Your task to perform on an android device: snooze an email in the gmail app Image 0: 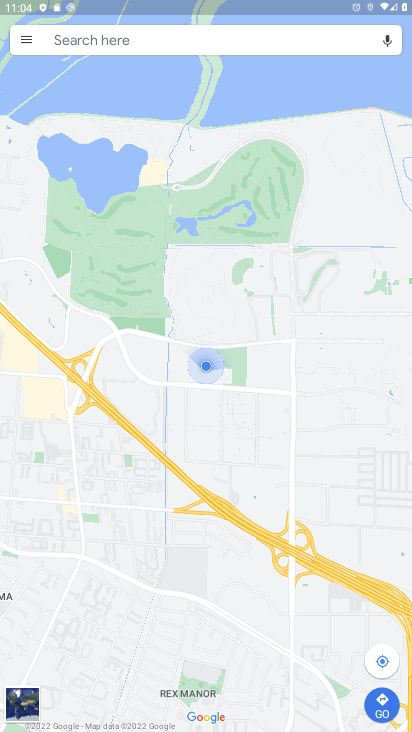
Step 0: press home button
Your task to perform on an android device: snooze an email in the gmail app Image 1: 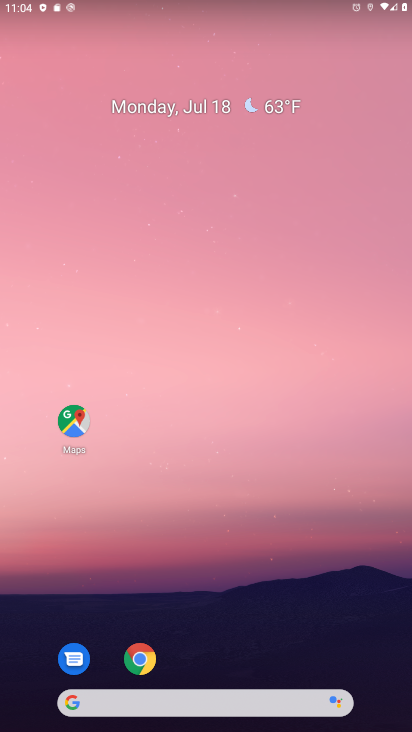
Step 1: drag from (212, 673) to (258, 147)
Your task to perform on an android device: snooze an email in the gmail app Image 2: 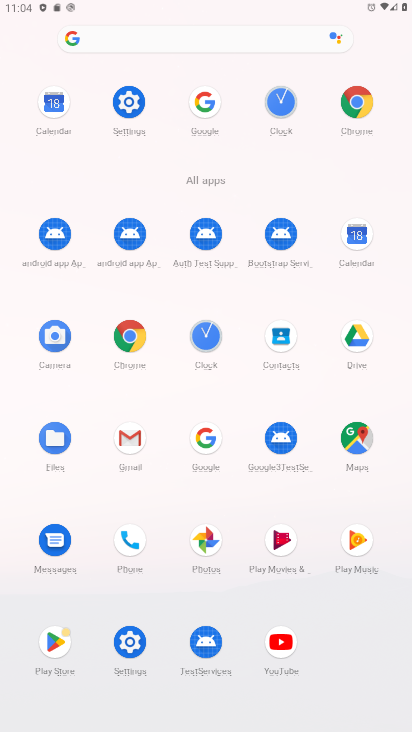
Step 2: click (128, 434)
Your task to perform on an android device: snooze an email in the gmail app Image 3: 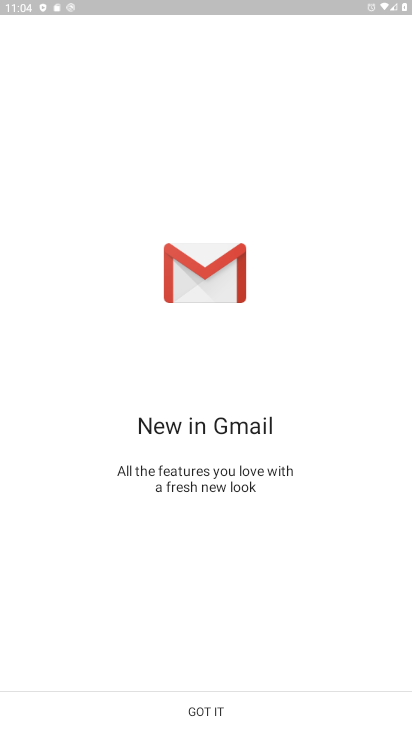
Step 3: click (210, 718)
Your task to perform on an android device: snooze an email in the gmail app Image 4: 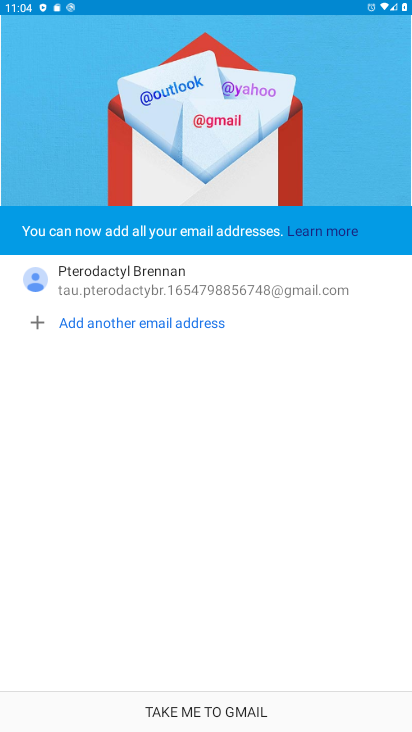
Step 4: click (211, 718)
Your task to perform on an android device: snooze an email in the gmail app Image 5: 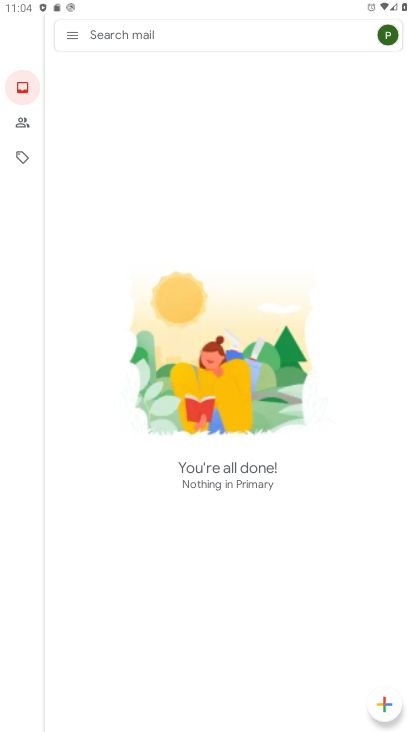
Step 5: click (73, 36)
Your task to perform on an android device: snooze an email in the gmail app Image 6: 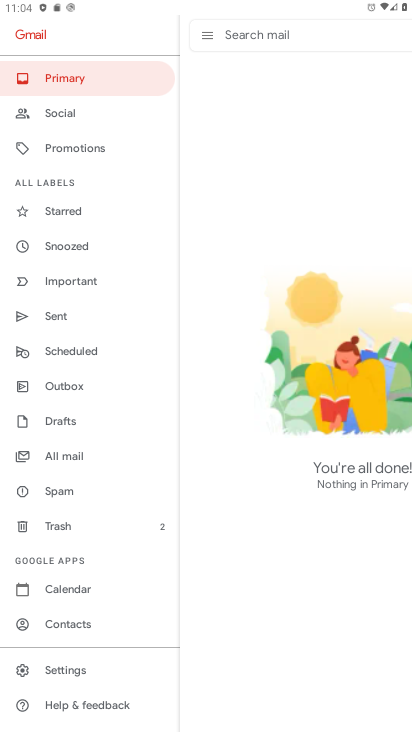
Step 6: click (53, 449)
Your task to perform on an android device: snooze an email in the gmail app Image 7: 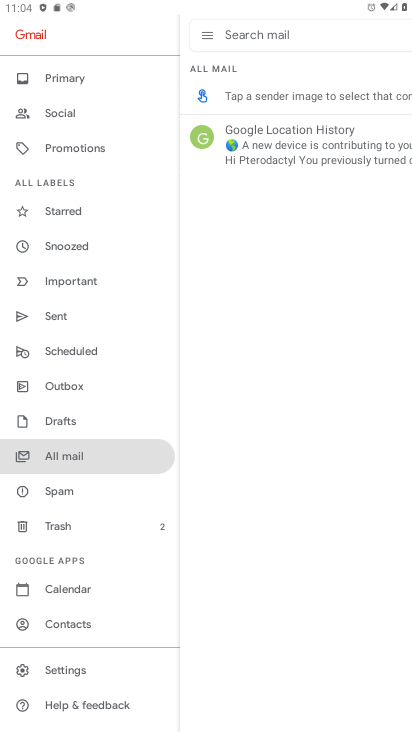
Step 7: drag from (224, 247) to (0, 235)
Your task to perform on an android device: snooze an email in the gmail app Image 8: 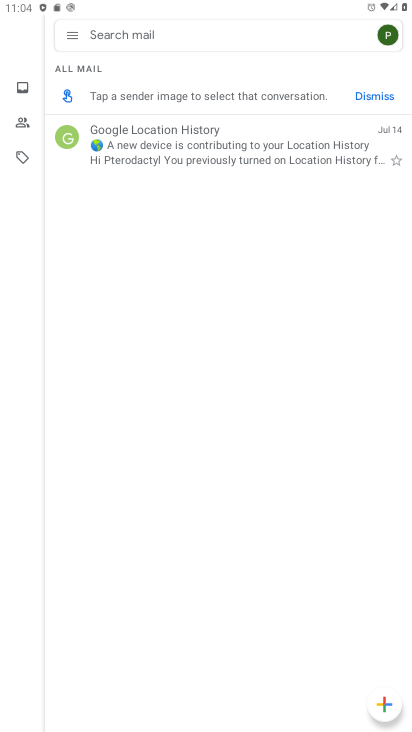
Step 8: click (209, 145)
Your task to perform on an android device: snooze an email in the gmail app Image 9: 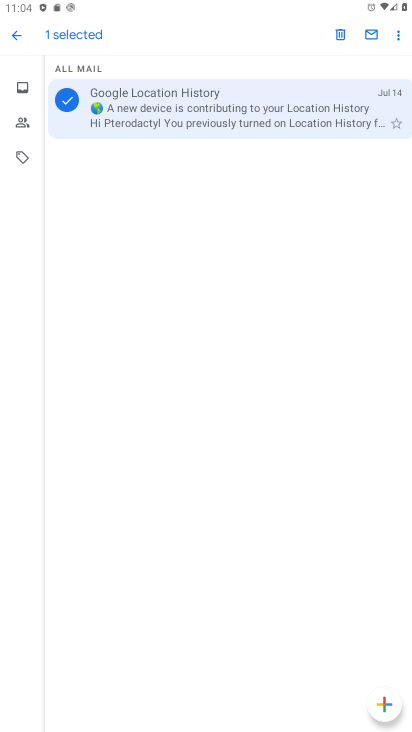
Step 9: click (393, 37)
Your task to perform on an android device: snooze an email in the gmail app Image 10: 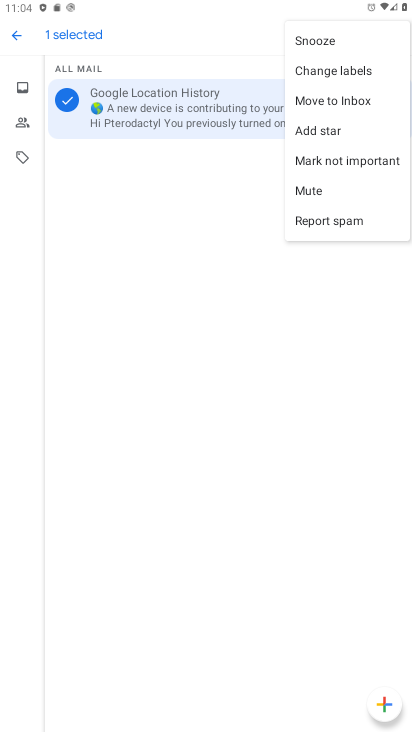
Step 10: click (326, 39)
Your task to perform on an android device: snooze an email in the gmail app Image 11: 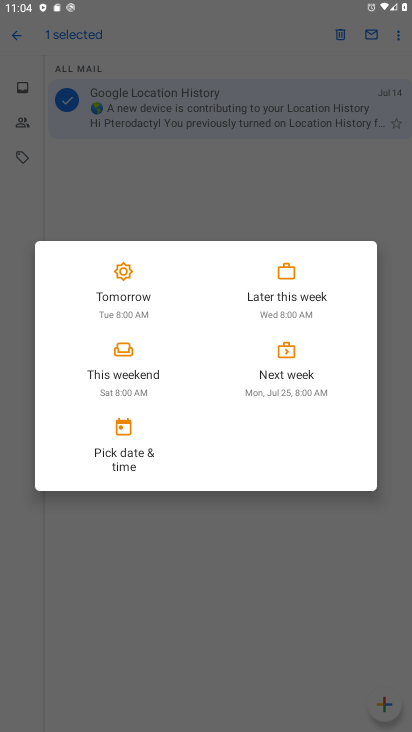
Step 11: click (119, 287)
Your task to perform on an android device: snooze an email in the gmail app Image 12: 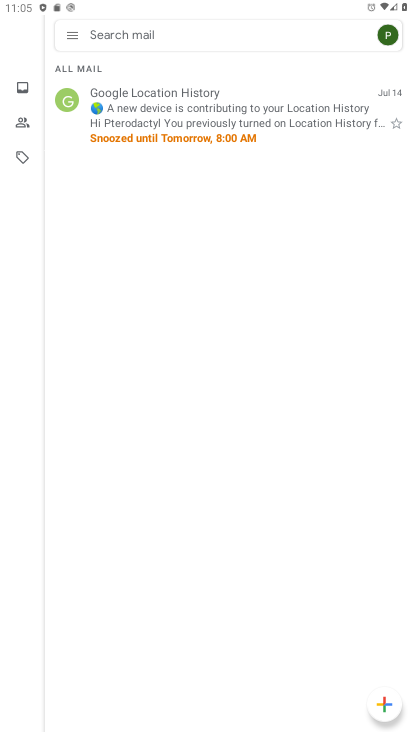
Step 12: task complete